Your task to perform on an android device: turn on location history Image 0: 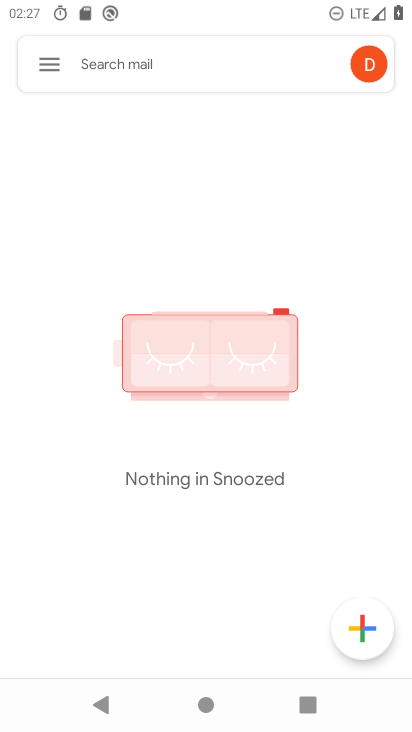
Step 0: press home button
Your task to perform on an android device: turn on location history Image 1: 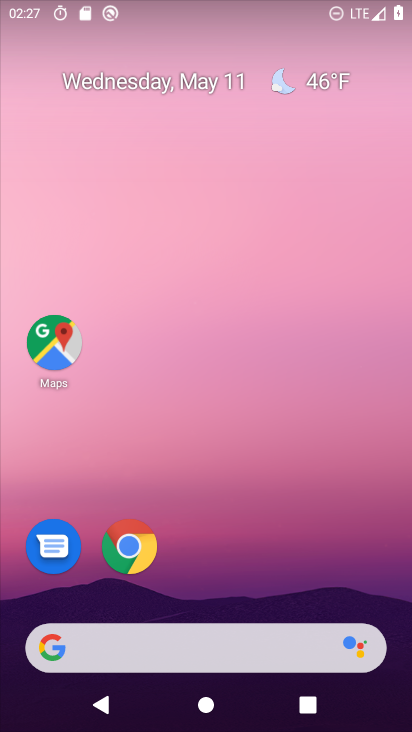
Step 1: drag from (248, 687) to (254, 264)
Your task to perform on an android device: turn on location history Image 2: 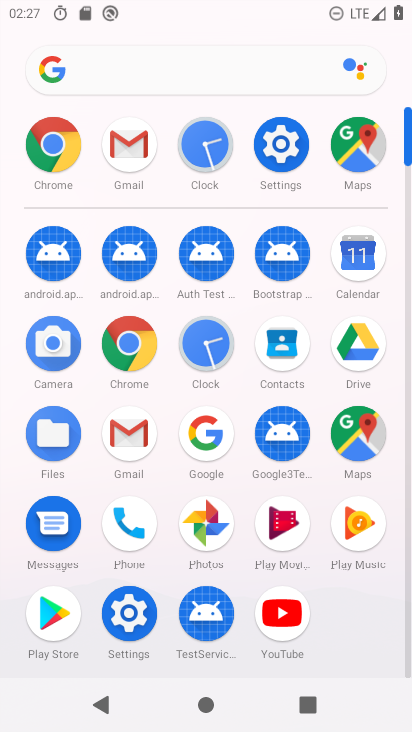
Step 2: click (286, 148)
Your task to perform on an android device: turn on location history Image 3: 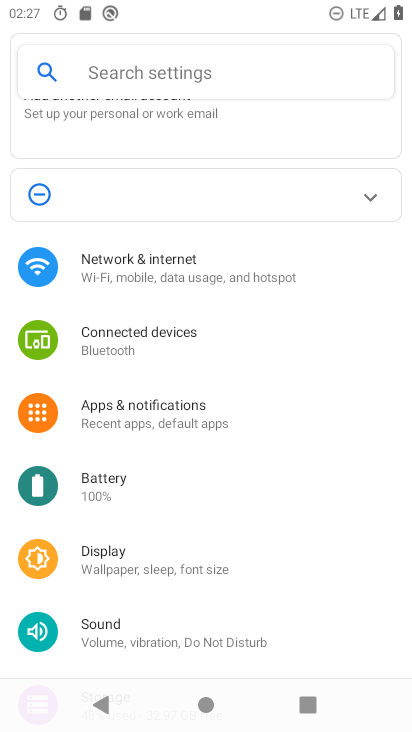
Step 3: click (237, 69)
Your task to perform on an android device: turn on location history Image 4: 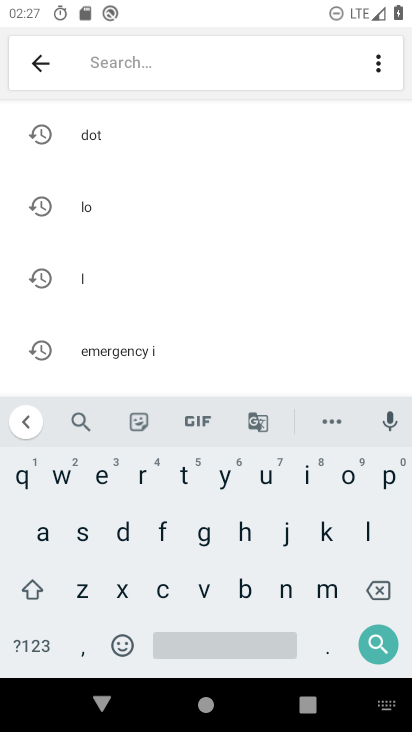
Step 4: click (373, 537)
Your task to perform on an android device: turn on location history Image 5: 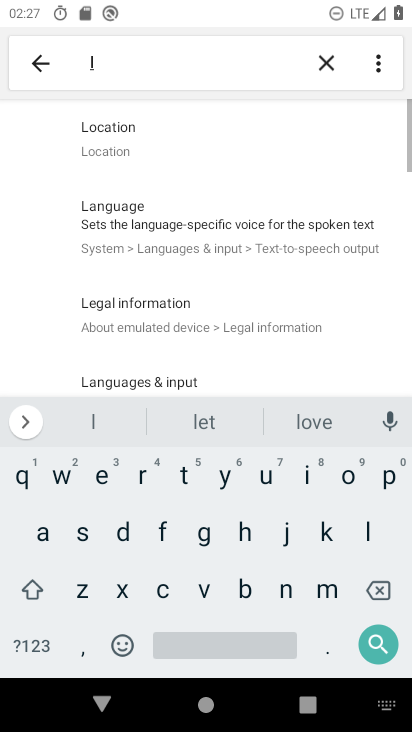
Step 5: click (341, 475)
Your task to perform on an android device: turn on location history Image 6: 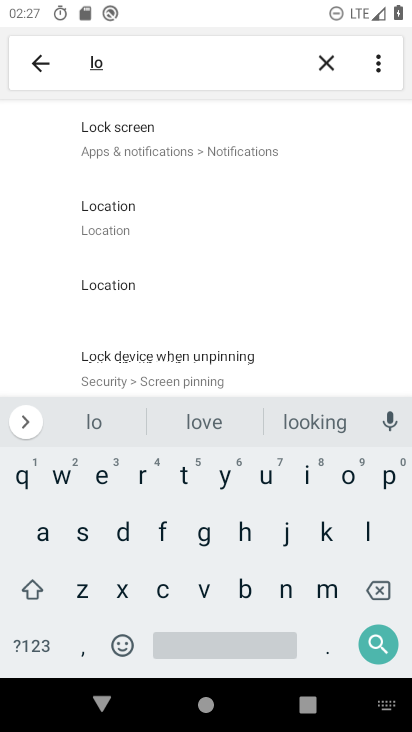
Step 6: click (155, 224)
Your task to perform on an android device: turn on location history Image 7: 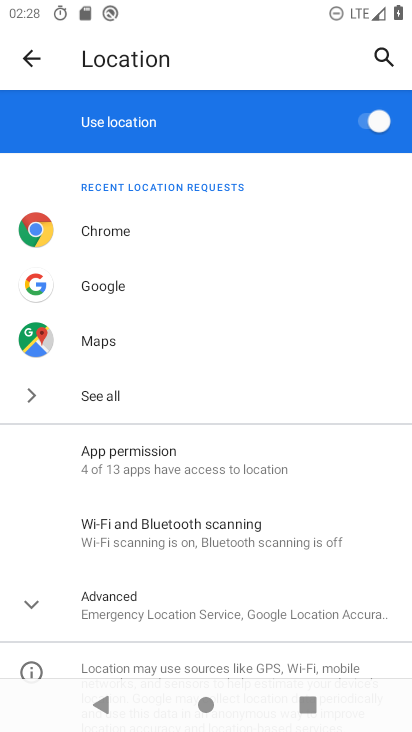
Step 7: click (43, 609)
Your task to perform on an android device: turn on location history Image 8: 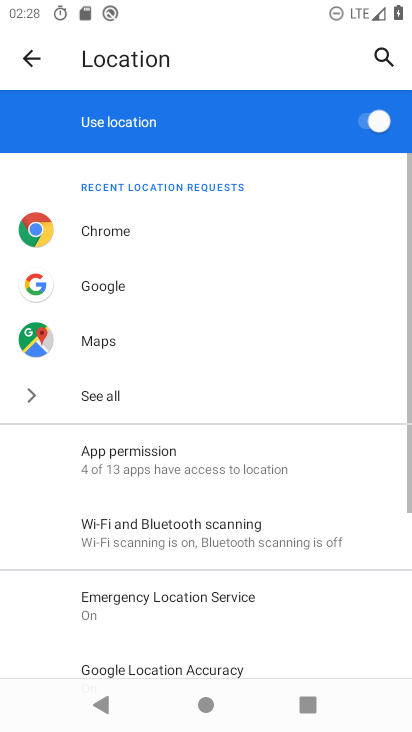
Step 8: drag from (171, 576) to (250, 356)
Your task to perform on an android device: turn on location history Image 9: 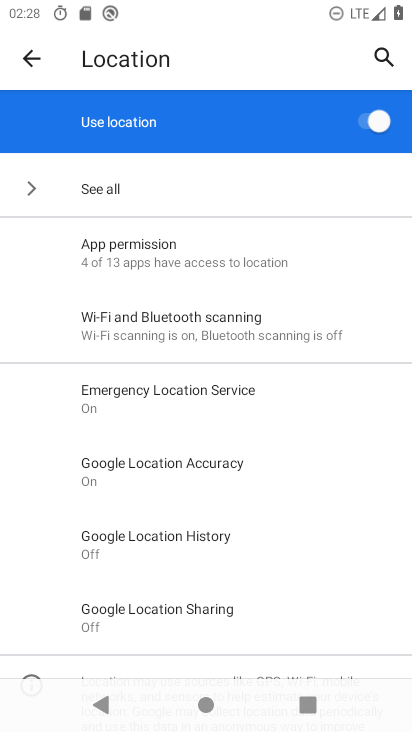
Step 9: click (182, 536)
Your task to perform on an android device: turn on location history Image 10: 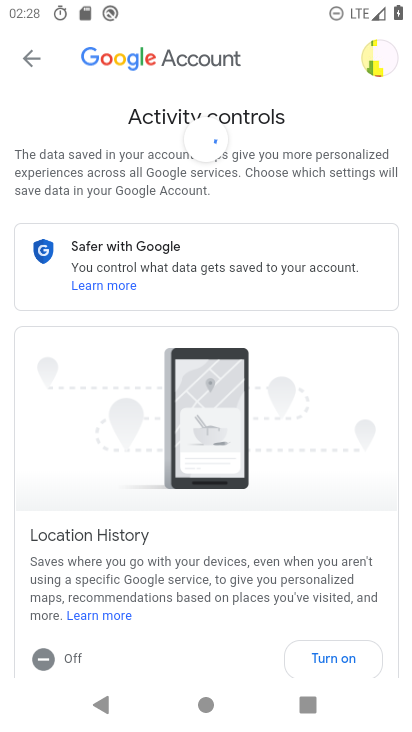
Step 10: task complete